Your task to perform on an android device: Open Wikipedia Image 0: 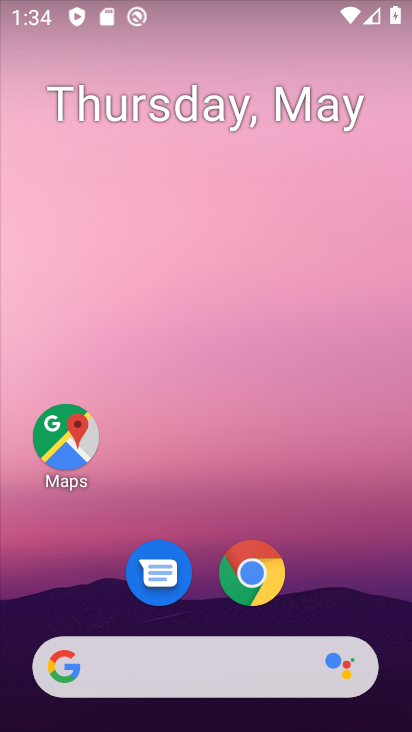
Step 0: click (276, 576)
Your task to perform on an android device: Open Wikipedia Image 1: 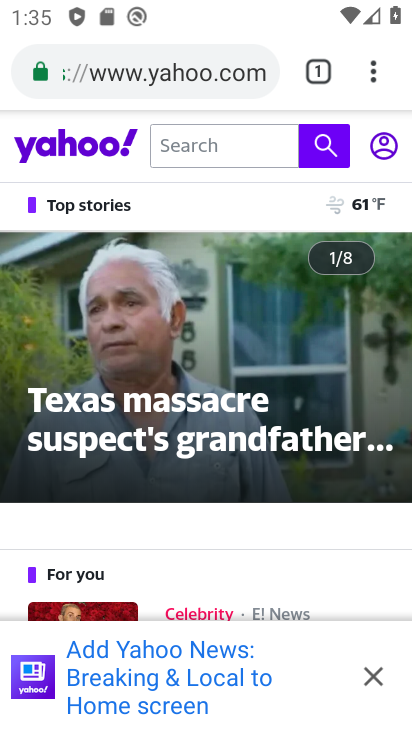
Step 1: click (322, 62)
Your task to perform on an android device: Open Wikipedia Image 2: 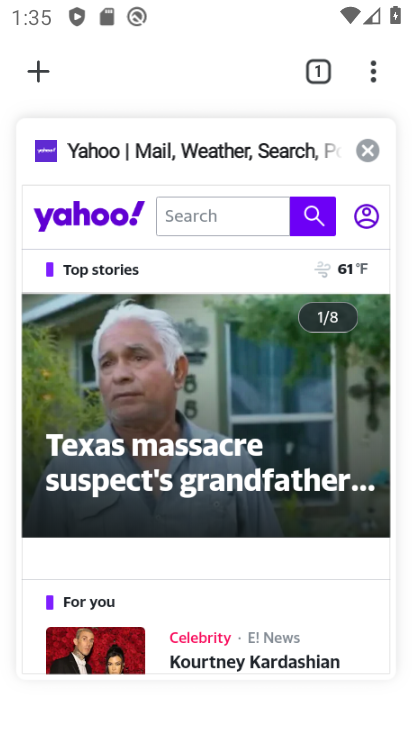
Step 2: click (43, 77)
Your task to perform on an android device: Open Wikipedia Image 3: 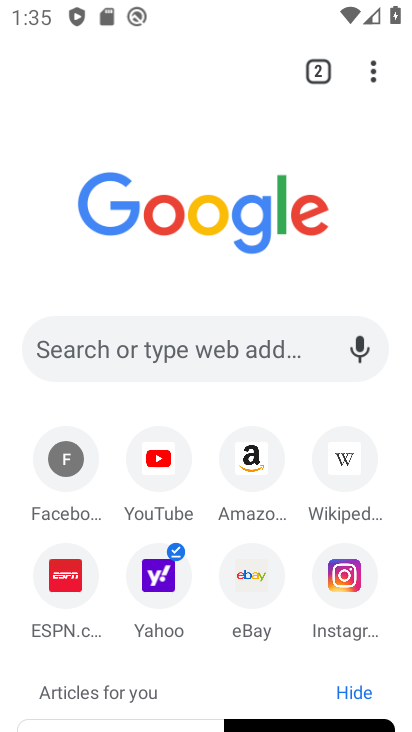
Step 3: click (341, 469)
Your task to perform on an android device: Open Wikipedia Image 4: 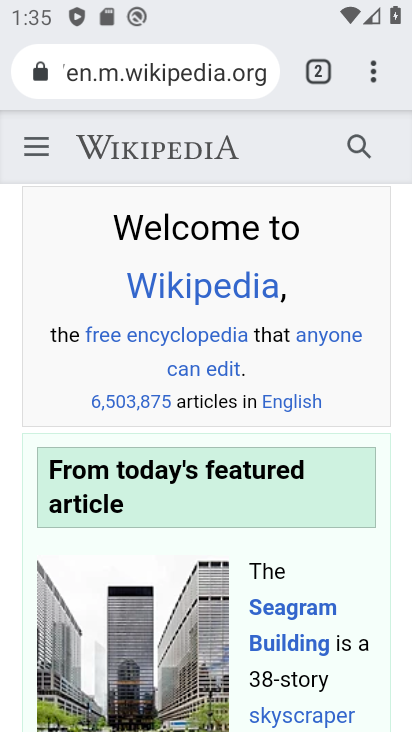
Step 4: task complete